Your task to perform on an android device: turn on the 12-hour format for clock Image 0: 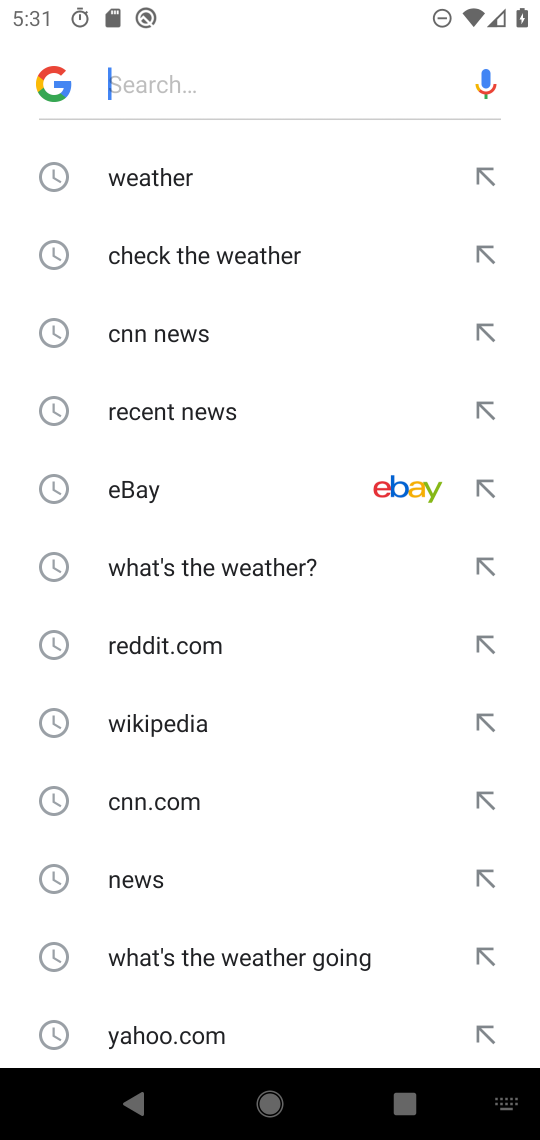
Step 0: press home button
Your task to perform on an android device: turn on the 12-hour format for clock Image 1: 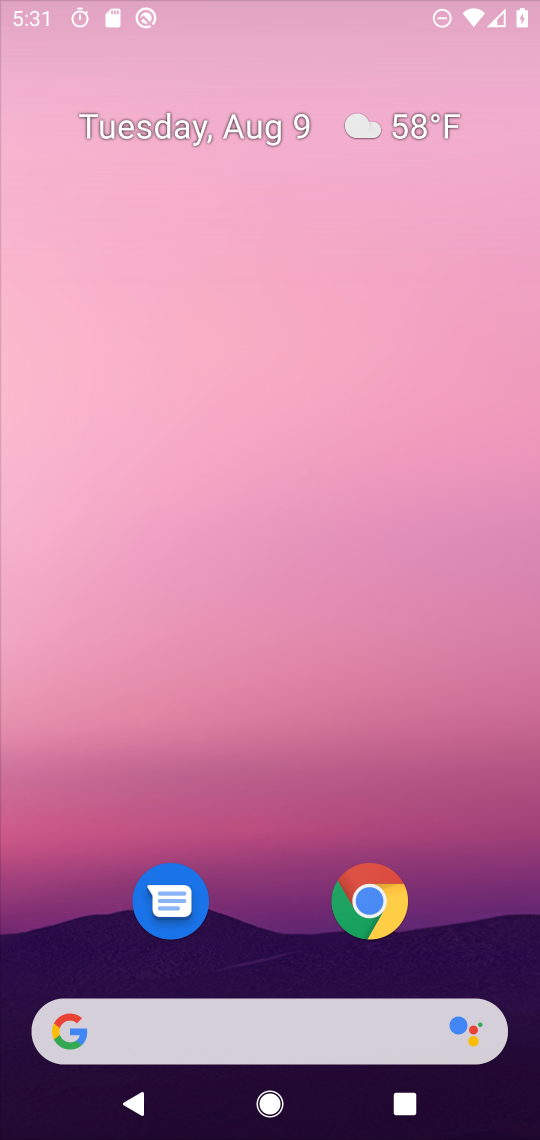
Step 1: drag from (322, 891) to (317, 126)
Your task to perform on an android device: turn on the 12-hour format for clock Image 2: 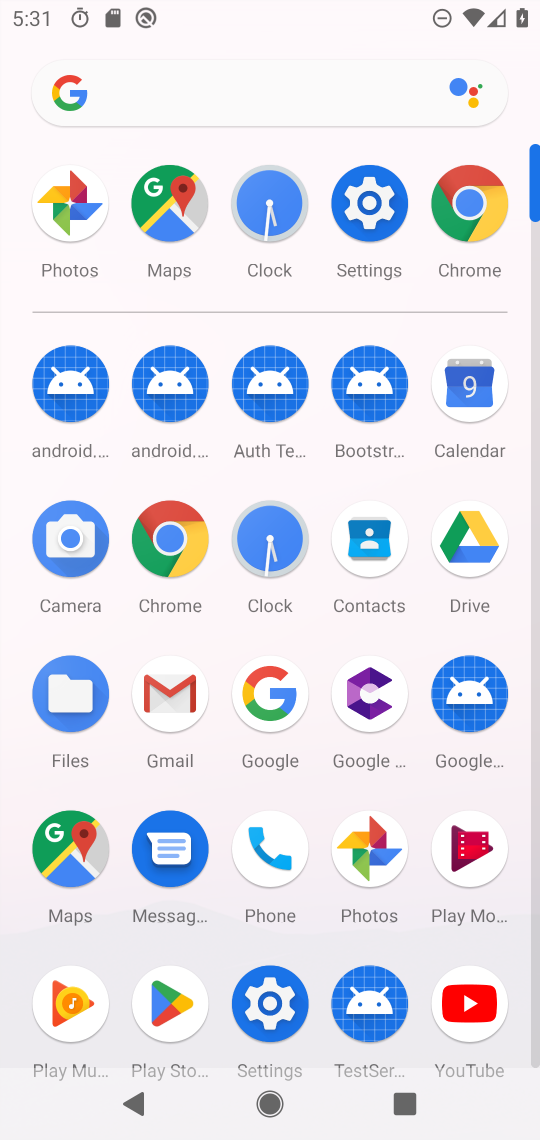
Step 2: click (273, 529)
Your task to perform on an android device: turn on the 12-hour format for clock Image 3: 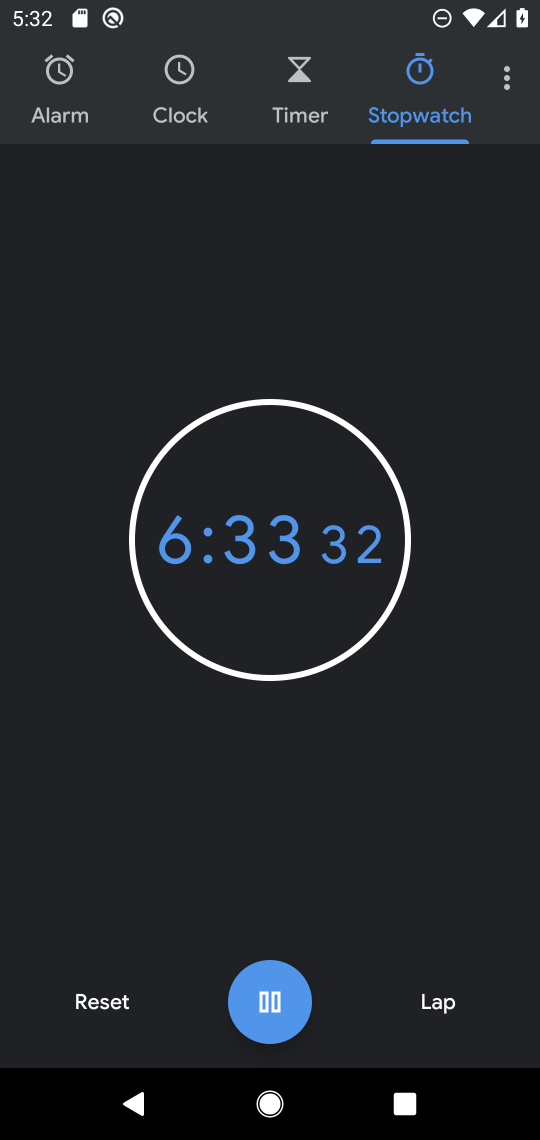
Step 3: click (509, 82)
Your task to perform on an android device: turn on the 12-hour format for clock Image 4: 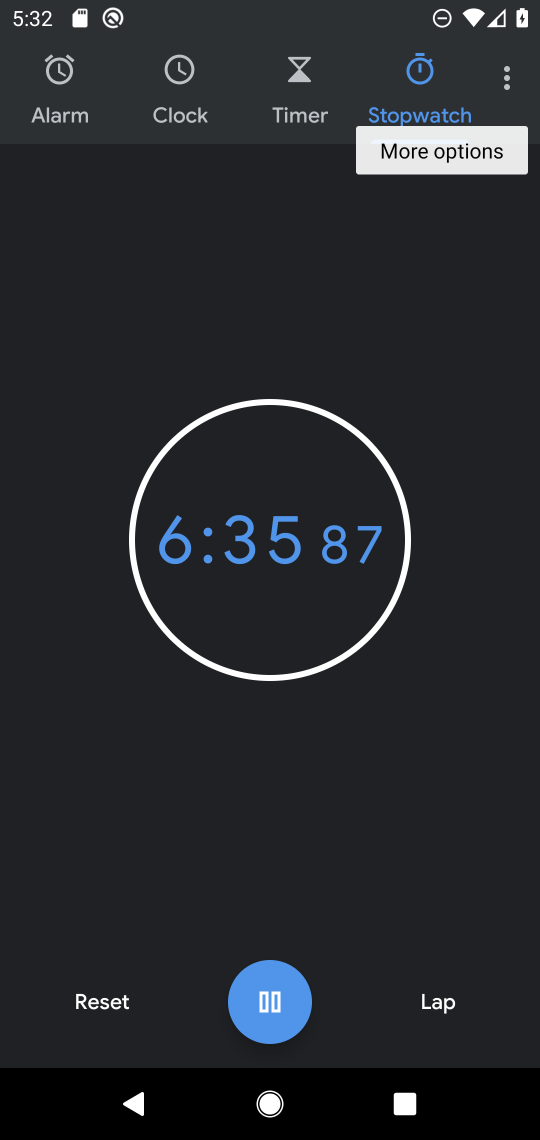
Step 4: click (509, 82)
Your task to perform on an android device: turn on the 12-hour format for clock Image 5: 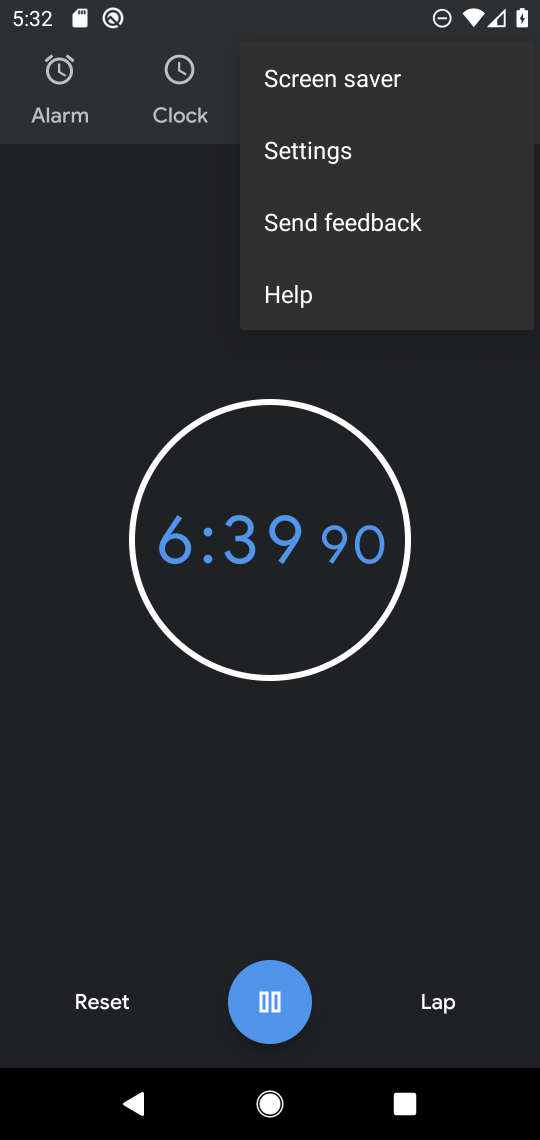
Step 5: click (306, 139)
Your task to perform on an android device: turn on the 12-hour format for clock Image 6: 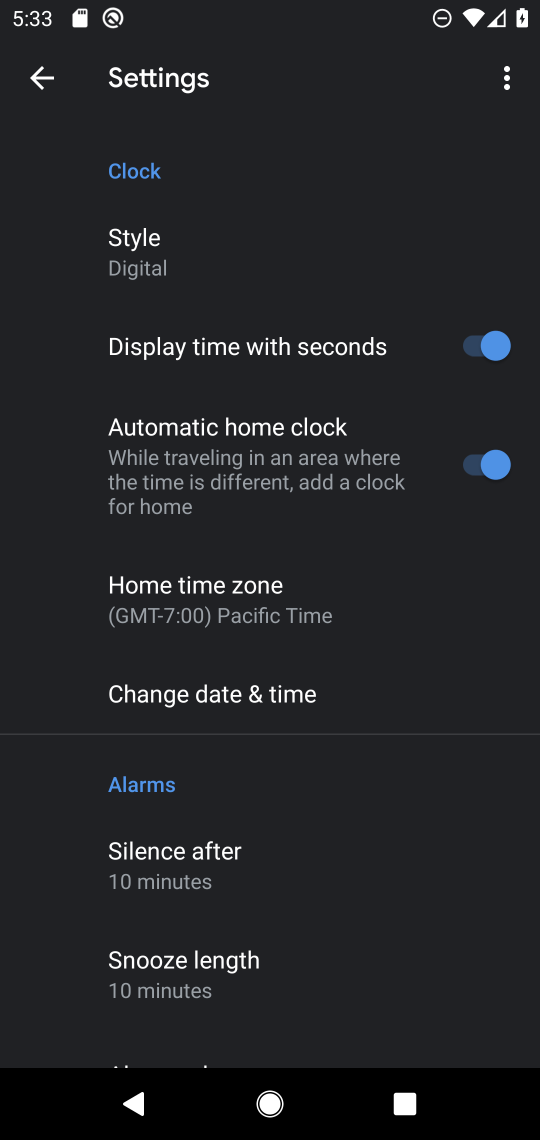
Step 6: drag from (376, 917) to (341, 694)
Your task to perform on an android device: turn on the 12-hour format for clock Image 7: 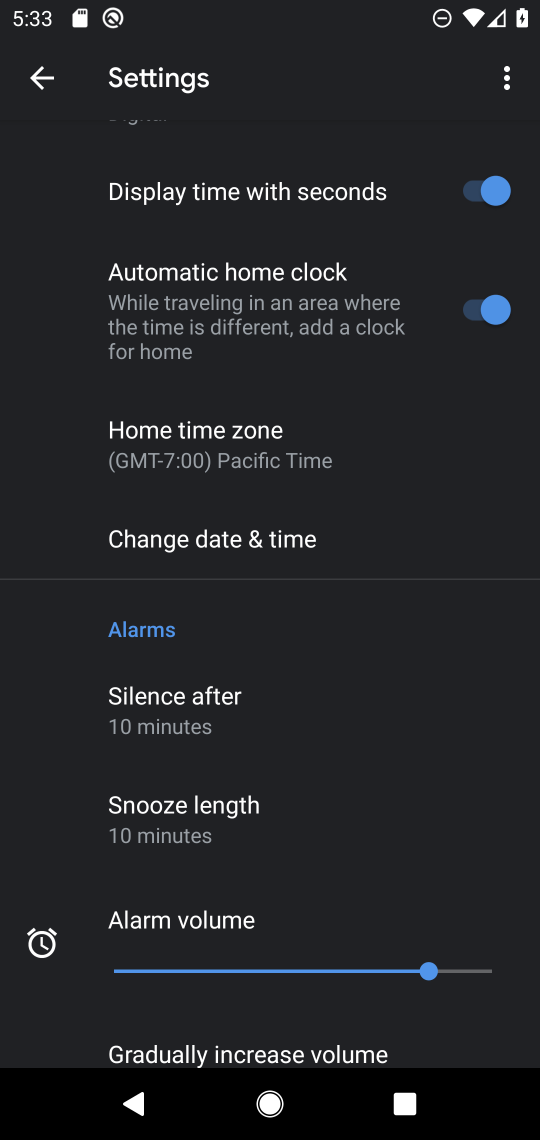
Step 7: click (228, 539)
Your task to perform on an android device: turn on the 12-hour format for clock Image 8: 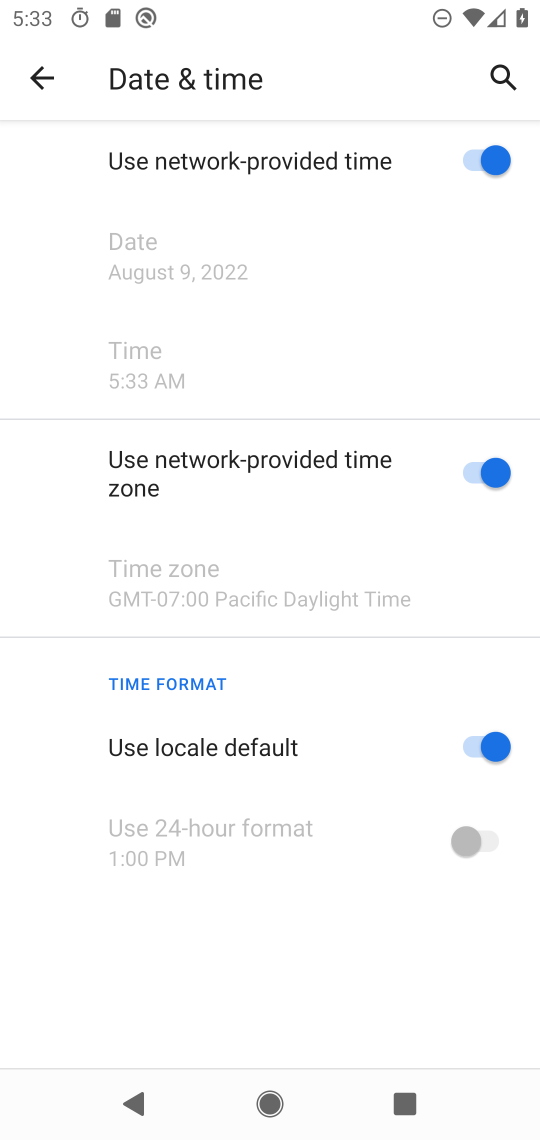
Step 8: task complete